Your task to perform on an android device: Open settings Image 0: 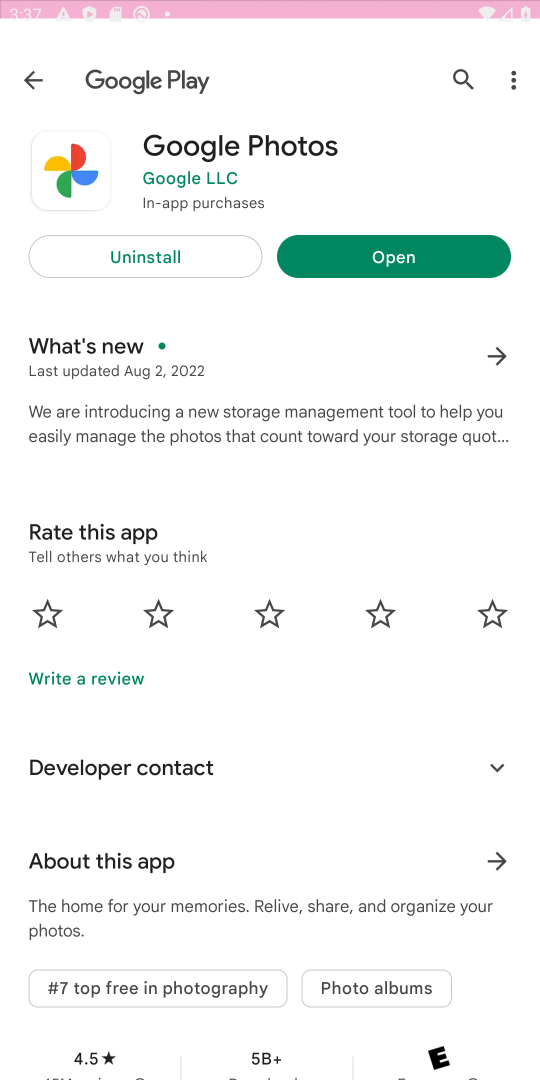
Step 0: press home button
Your task to perform on an android device: Open settings Image 1: 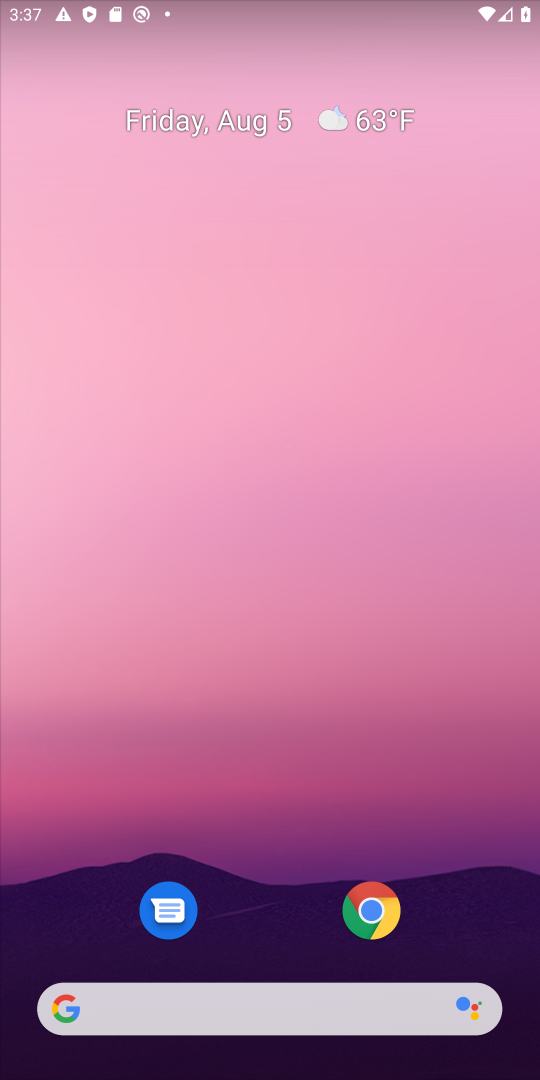
Step 1: drag from (458, 949) to (311, 319)
Your task to perform on an android device: Open settings Image 2: 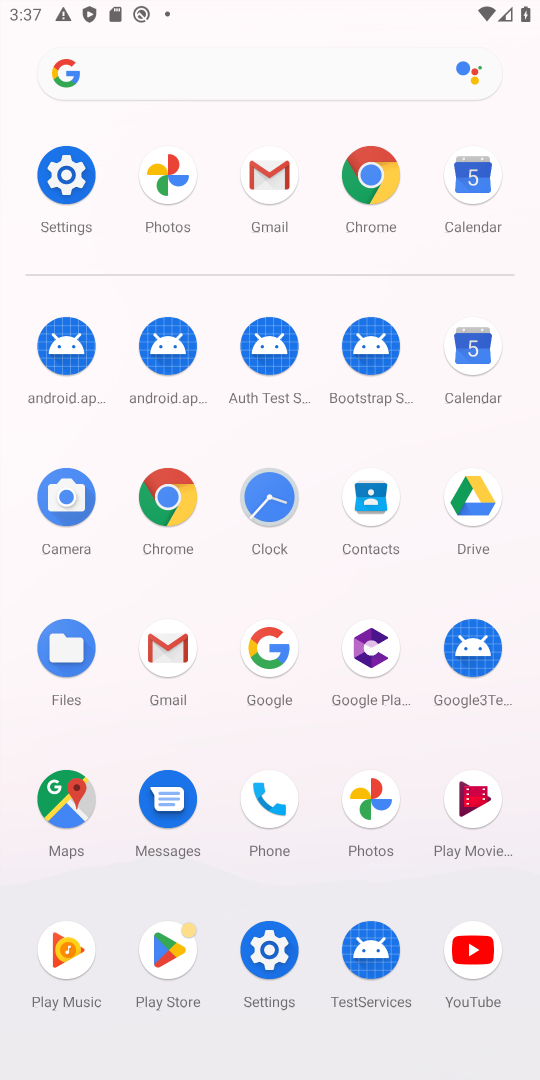
Step 2: click (77, 175)
Your task to perform on an android device: Open settings Image 3: 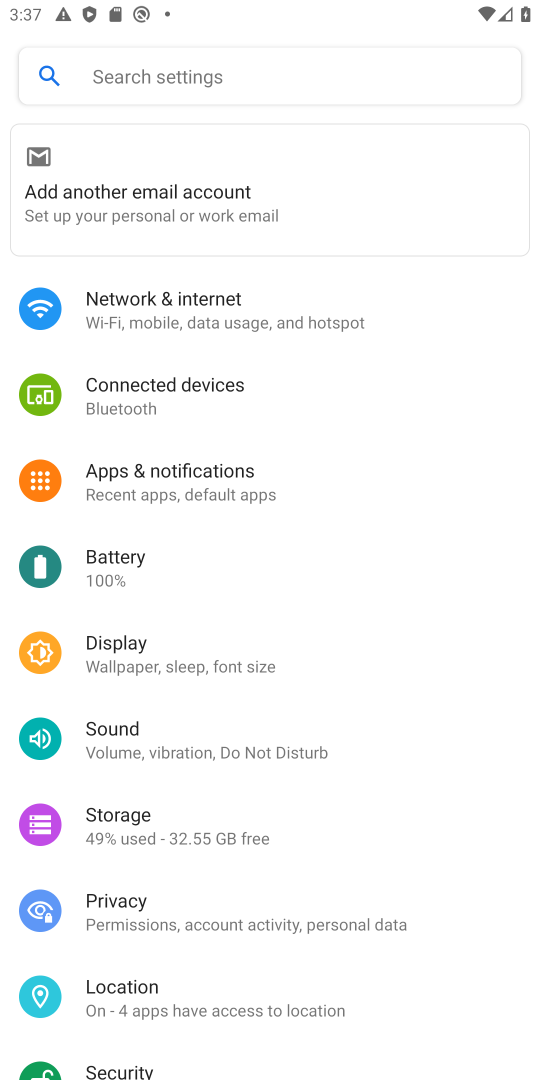
Step 3: task complete